Your task to perform on an android device: Go to sound settings Image 0: 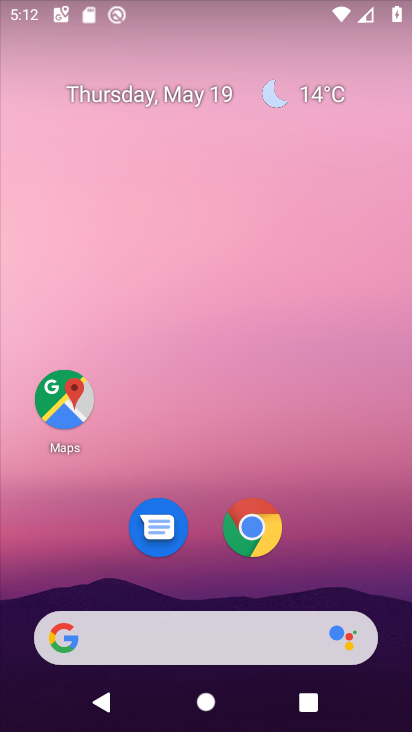
Step 0: drag from (368, 515) to (228, 32)
Your task to perform on an android device: Go to sound settings Image 1: 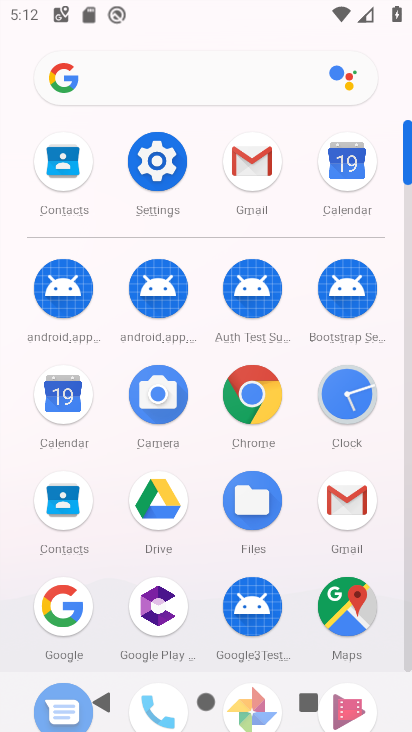
Step 1: click (179, 168)
Your task to perform on an android device: Go to sound settings Image 2: 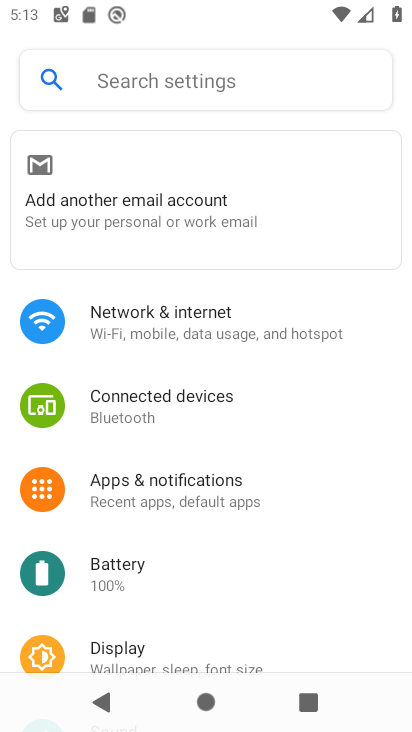
Step 2: drag from (280, 557) to (277, 166)
Your task to perform on an android device: Go to sound settings Image 3: 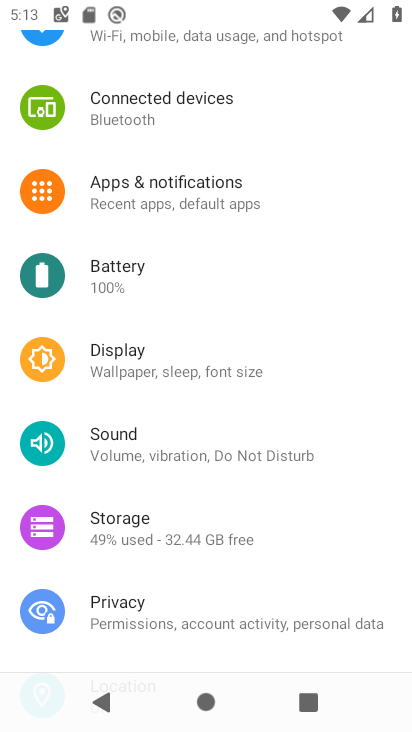
Step 3: click (216, 428)
Your task to perform on an android device: Go to sound settings Image 4: 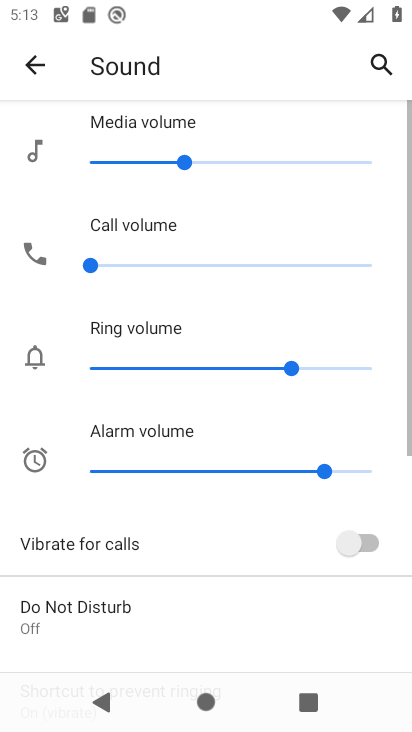
Step 4: task complete